Your task to perform on an android device: Go to eBay Image 0: 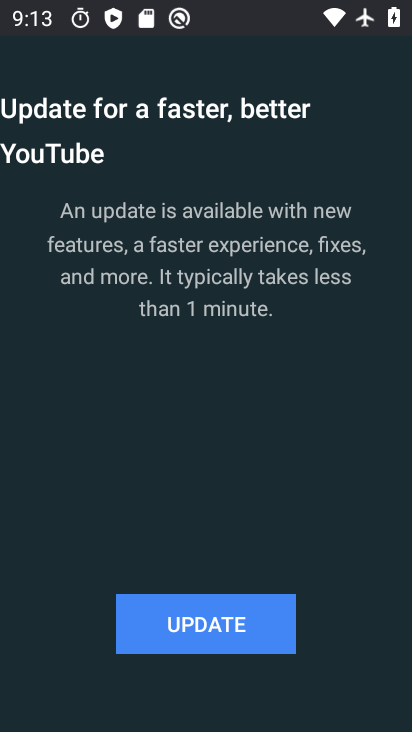
Step 0: press back button
Your task to perform on an android device: Go to eBay Image 1: 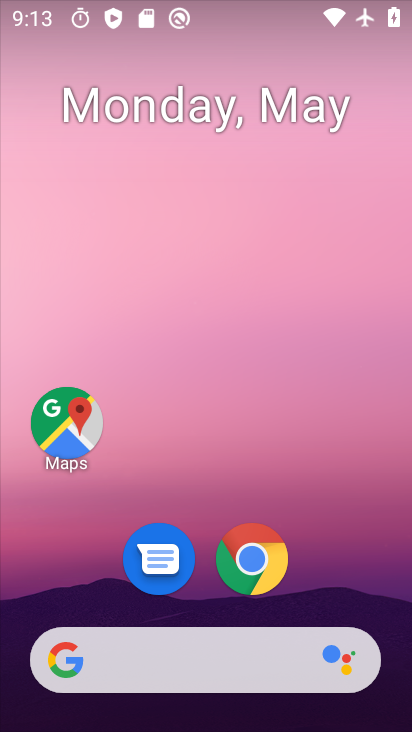
Step 1: drag from (251, 566) to (292, 566)
Your task to perform on an android device: Go to eBay Image 2: 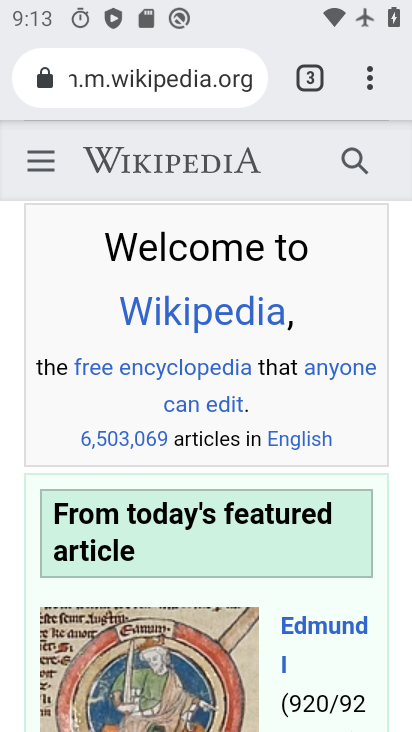
Step 2: click (124, 84)
Your task to perform on an android device: Go to eBay Image 3: 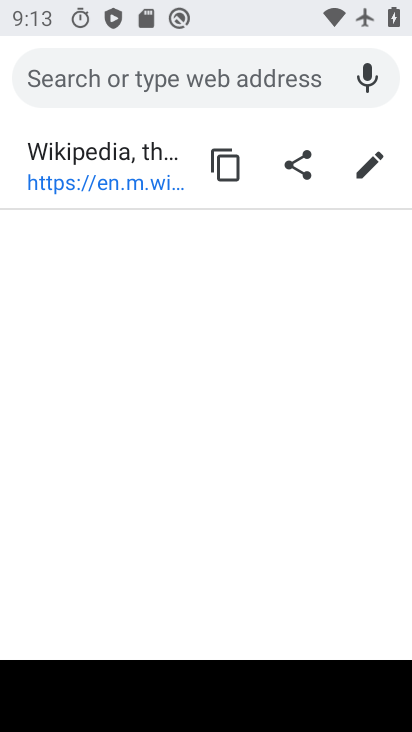
Step 3: type "ebay"
Your task to perform on an android device: Go to eBay Image 4: 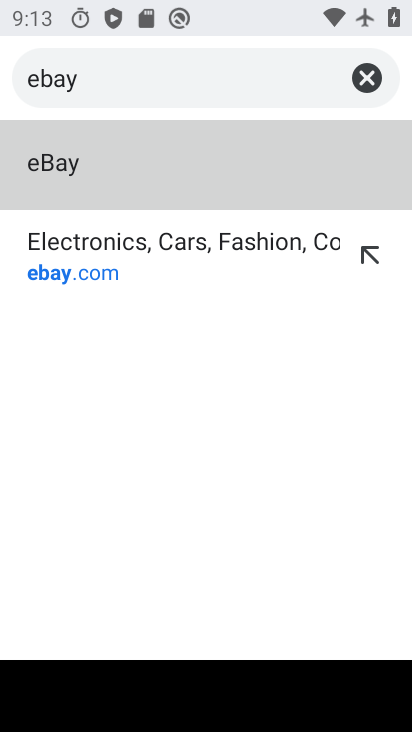
Step 4: click (21, 188)
Your task to perform on an android device: Go to eBay Image 5: 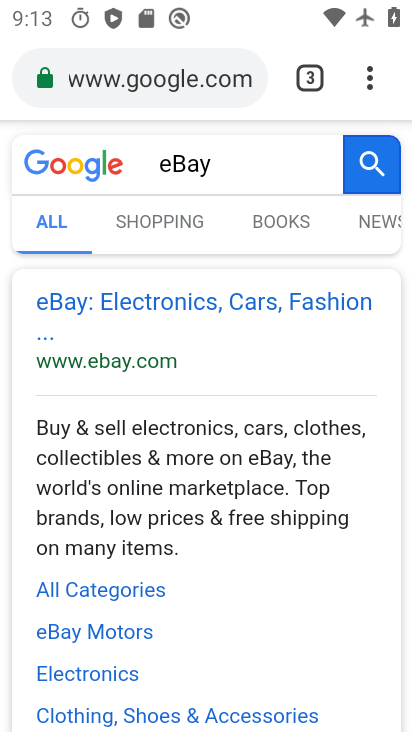
Step 5: click (64, 302)
Your task to perform on an android device: Go to eBay Image 6: 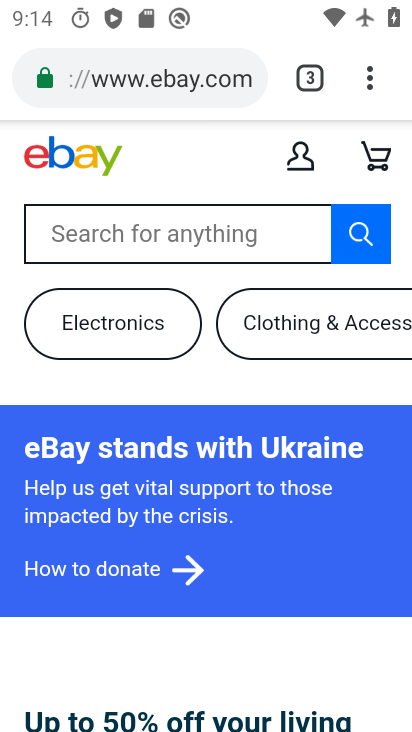
Step 6: task complete